Your task to perform on an android device: Clear the shopping cart on walmart.com. Add "usb-b" to the cart on walmart.com Image 0: 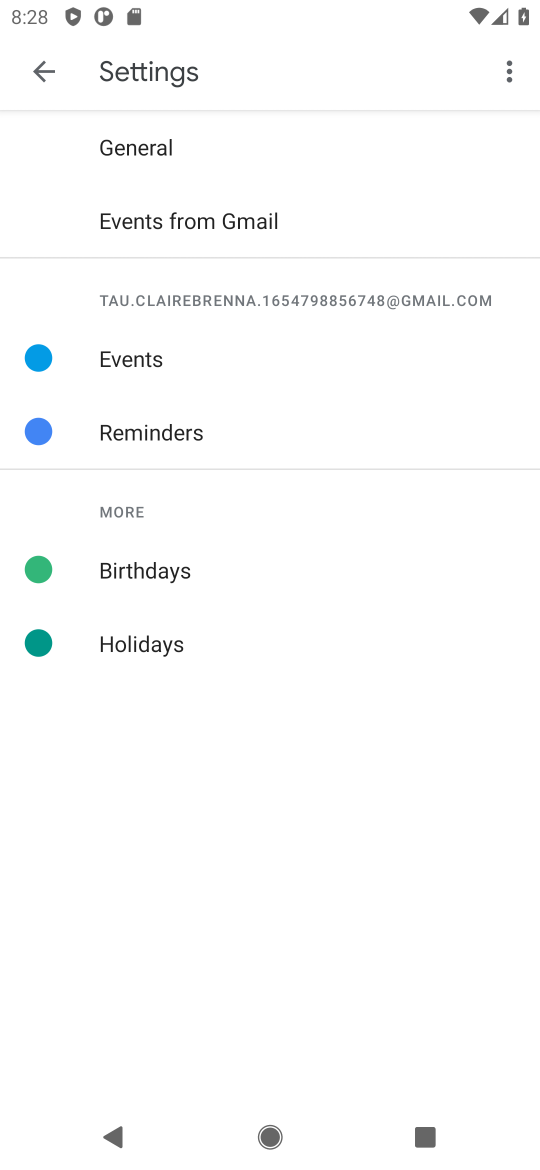
Step 0: press home button
Your task to perform on an android device: Clear the shopping cart on walmart.com. Add "usb-b" to the cart on walmart.com Image 1: 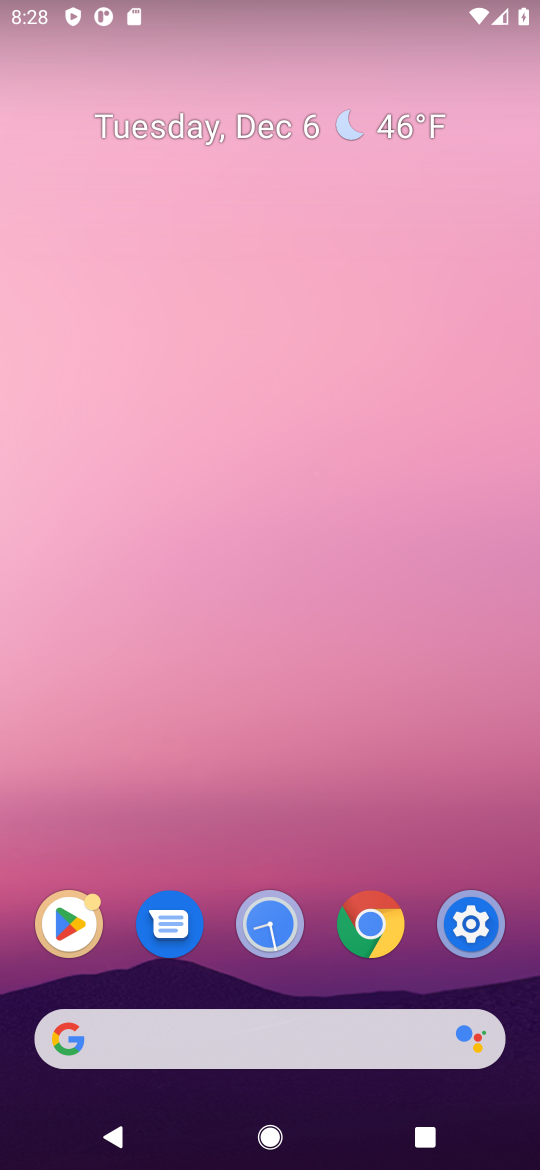
Step 1: click (266, 1039)
Your task to perform on an android device: Clear the shopping cart on walmart.com. Add "usb-b" to the cart on walmart.com Image 2: 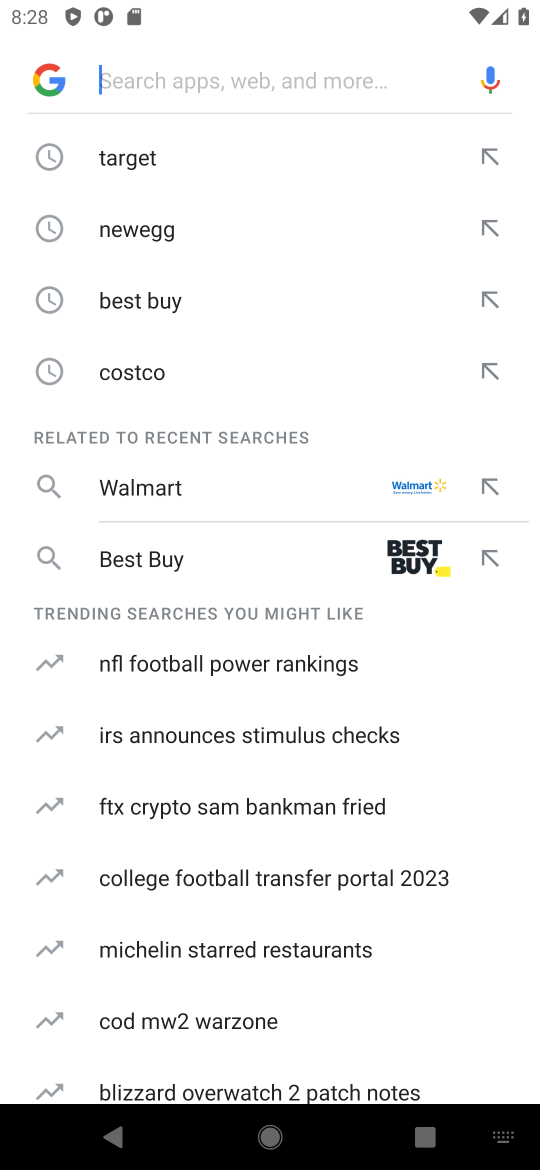
Step 2: type "walmart"
Your task to perform on an android device: Clear the shopping cart on walmart.com. Add "usb-b" to the cart on walmart.com Image 3: 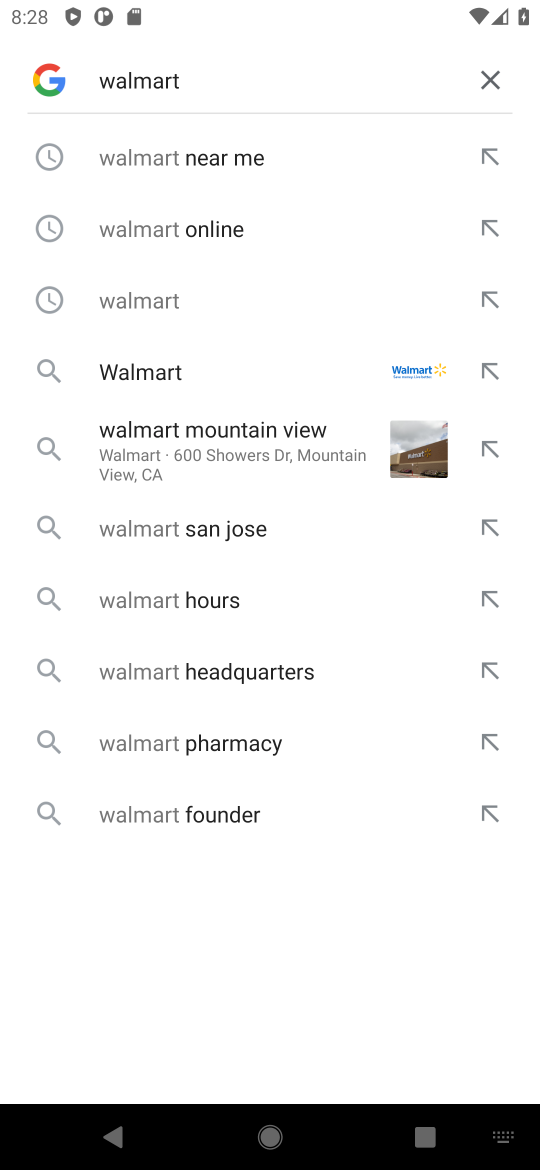
Step 3: click (163, 446)
Your task to perform on an android device: Clear the shopping cart on walmart.com. Add "usb-b" to the cart on walmart.com Image 4: 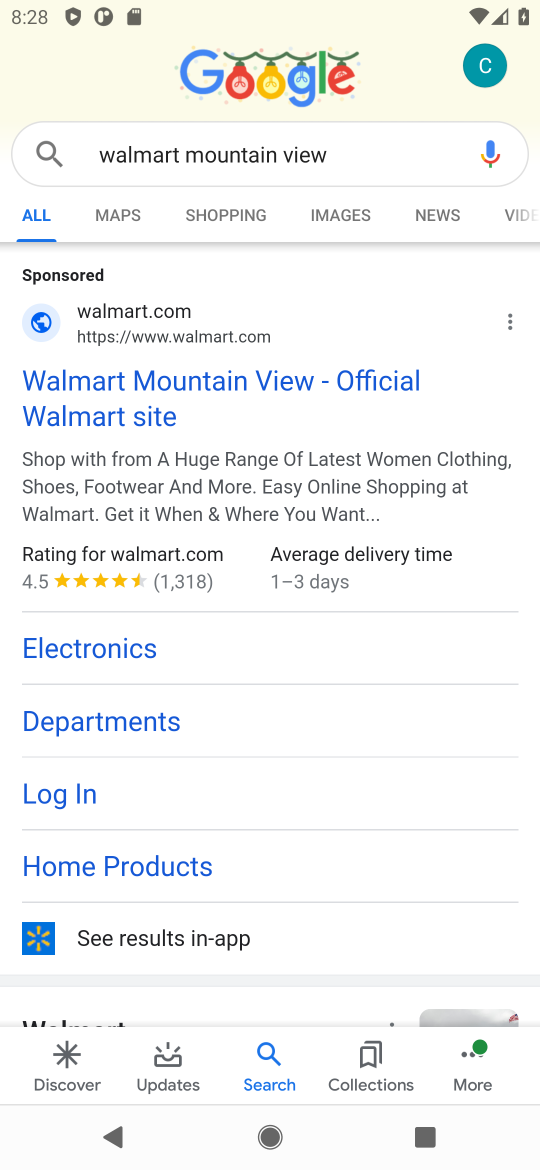
Step 4: click (122, 410)
Your task to perform on an android device: Clear the shopping cart on walmart.com. Add "usb-b" to the cart on walmart.com Image 5: 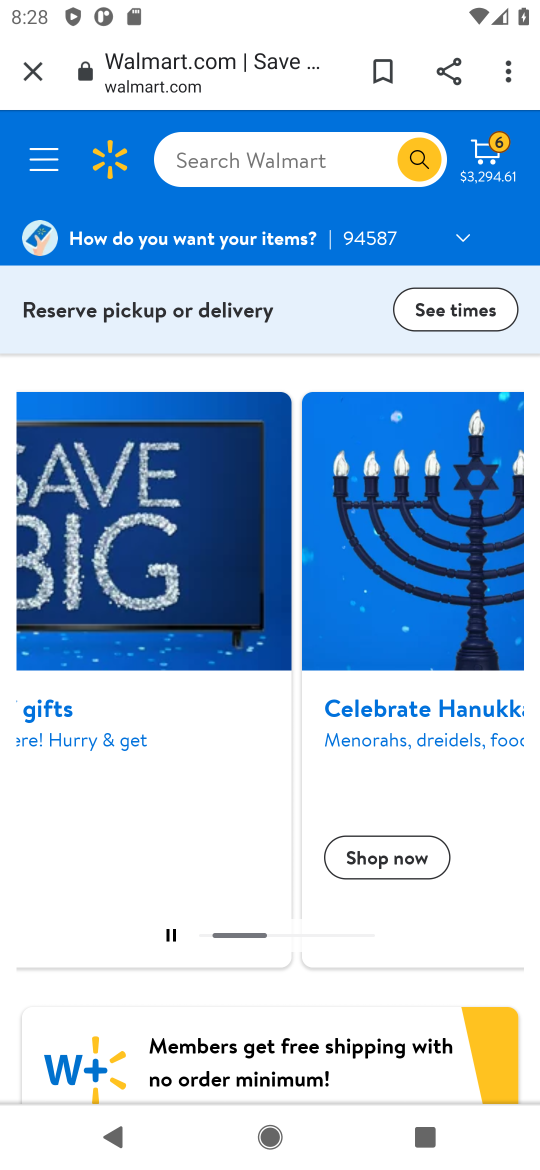
Step 5: drag from (303, 897) to (286, 361)
Your task to perform on an android device: Clear the shopping cart on walmart.com. Add "usb-b" to the cart on walmart.com Image 6: 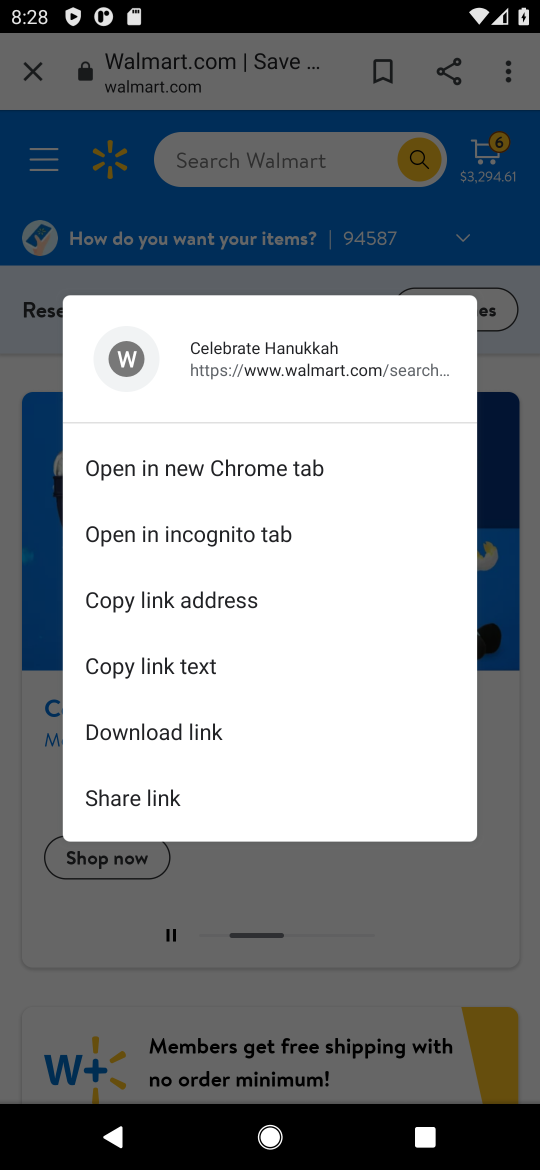
Step 6: click (384, 969)
Your task to perform on an android device: Clear the shopping cart on walmart.com. Add "usb-b" to the cart on walmart.com Image 7: 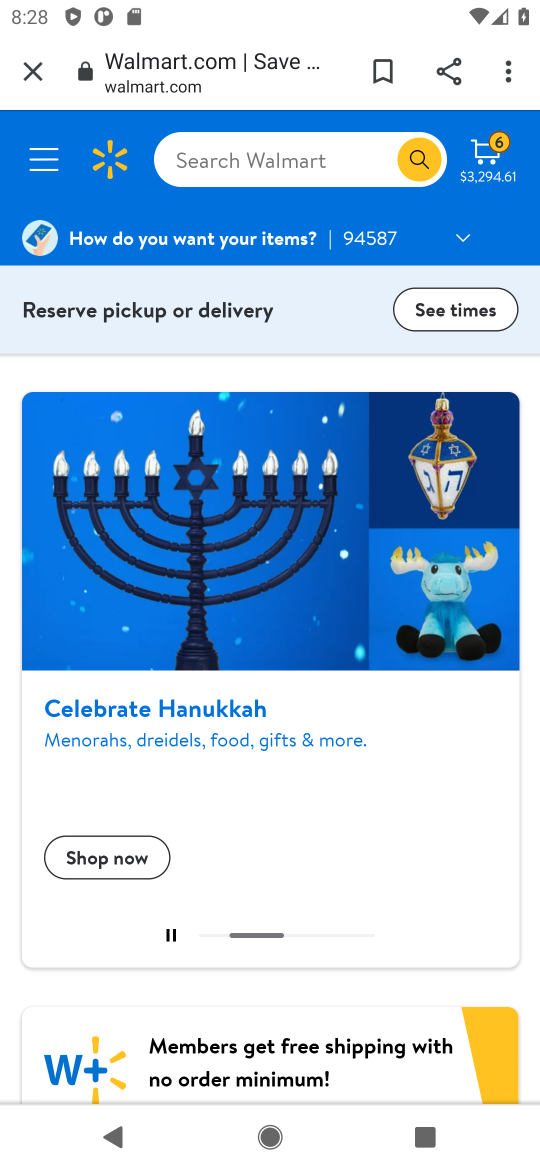
Step 7: task complete